Your task to perform on an android device: all mails in gmail Image 0: 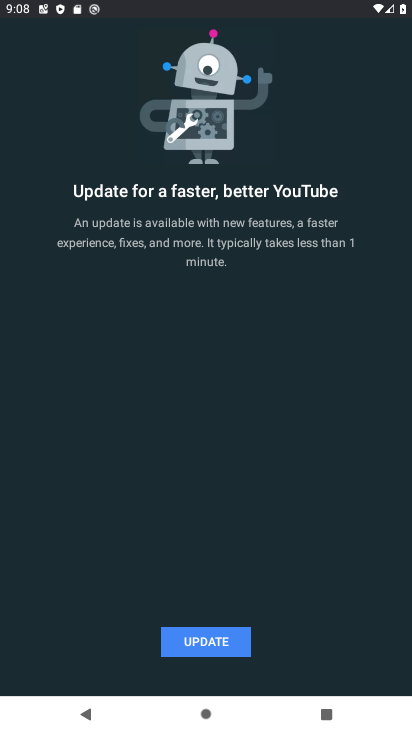
Step 0: press back button
Your task to perform on an android device: all mails in gmail Image 1: 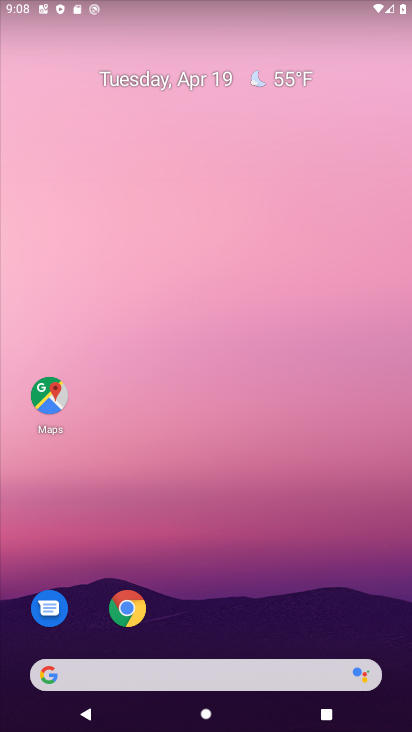
Step 1: drag from (161, 660) to (303, 148)
Your task to perform on an android device: all mails in gmail Image 2: 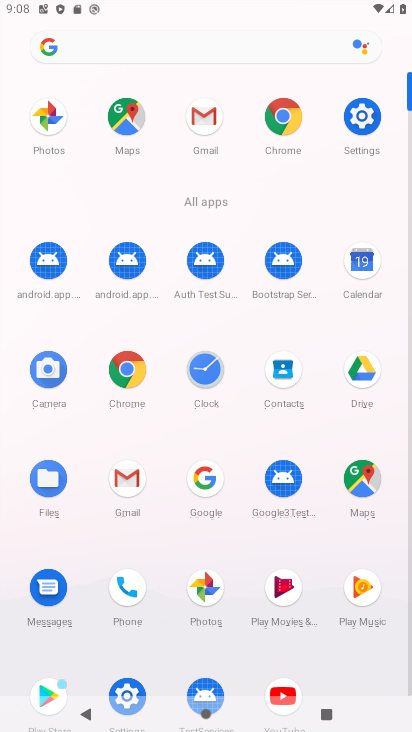
Step 2: click (118, 487)
Your task to perform on an android device: all mails in gmail Image 3: 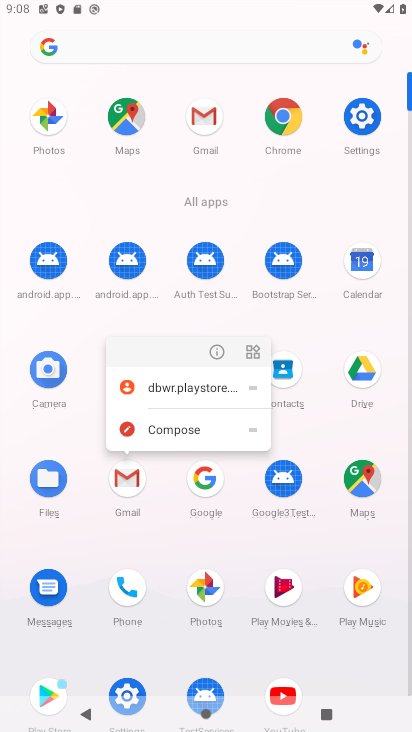
Step 3: click (127, 469)
Your task to perform on an android device: all mails in gmail Image 4: 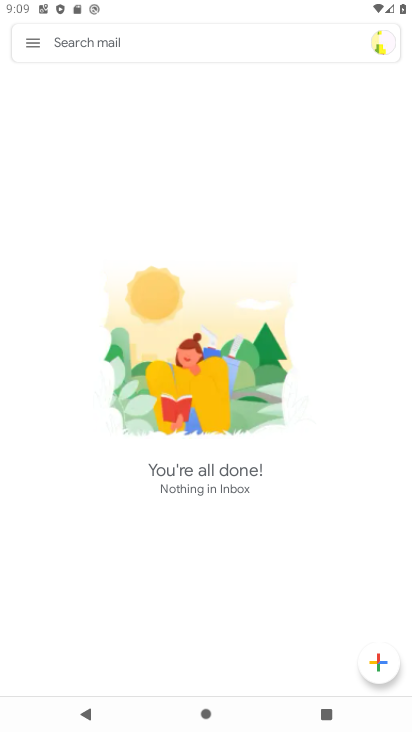
Step 4: click (36, 46)
Your task to perform on an android device: all mails in gmail Image 5: 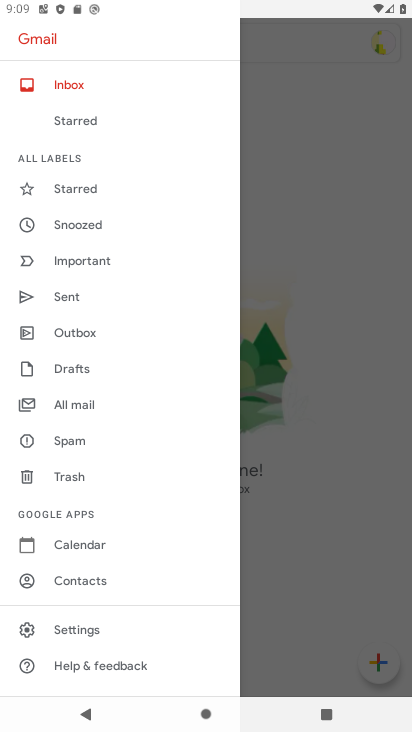
Step 5: click (120, 413)
Your task to perform on an android device: all mails in gmail Image 6: 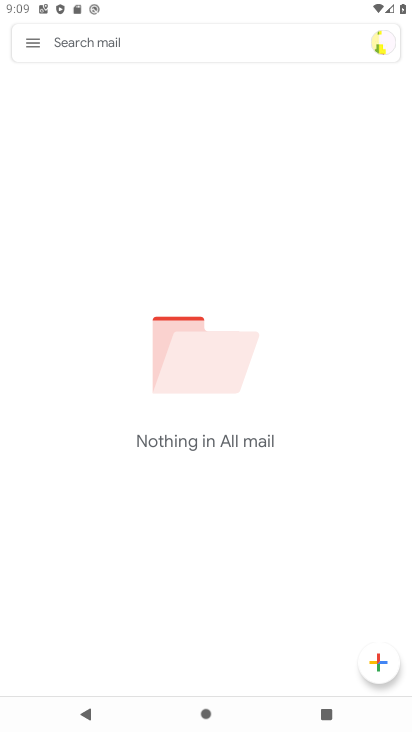
Step 6: task complete